Your task to perform on an android device: Open Google Maps and go to "Timeline" Image 0: 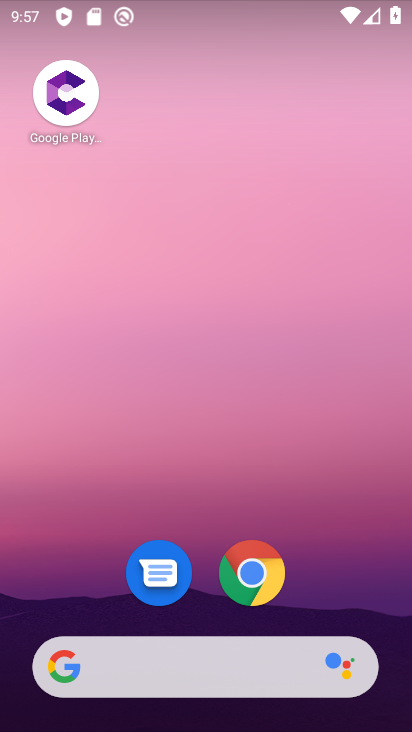
Step 0: drag from (322, 607) to (316, 168)
Your task to perform on an android device: Open Google Maps and go to "Timeline" Image 1: 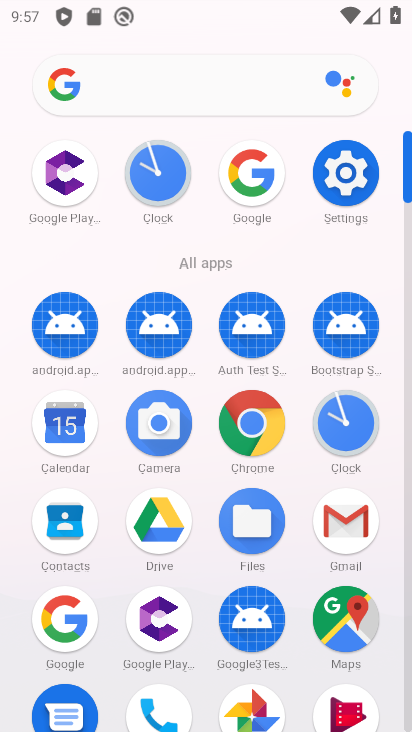
Step 1: click (353, 649)
Your task to perform on an android device: Open Google Maps and go to "Timeline" Image 2: 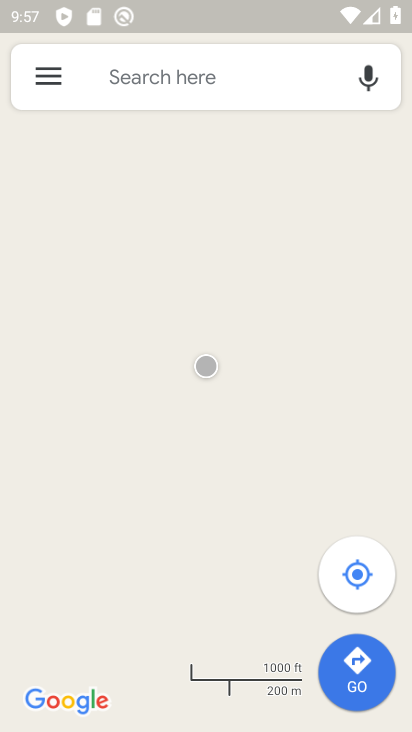
Step 2: click (46, 80)
Your task to perform on an android device: Open Google Maps and go to "Timeline" Image 3: 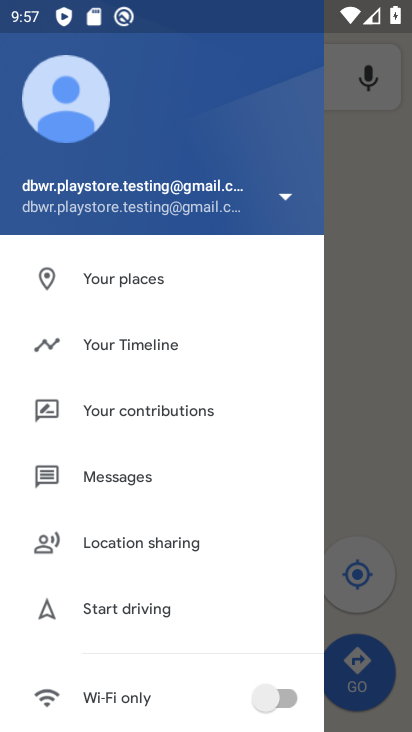
Step 3: click (148, 370)
Your task to perform on an android device: Open Google Maps and go to "Timeline" Image 4: 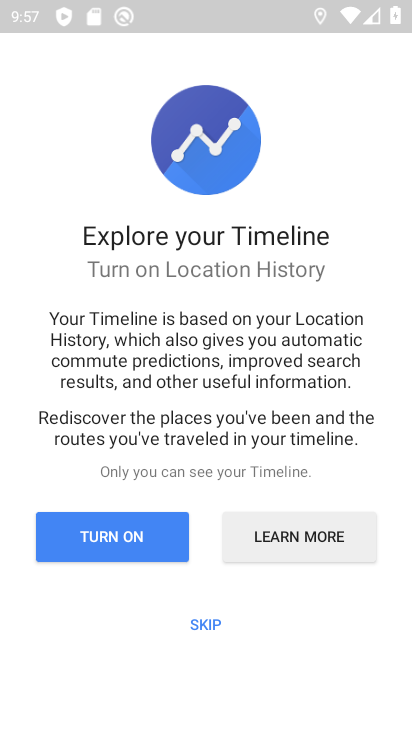
Step 4: click (210, 626)
Your task to perform on an android device: Open Google Maps and go to "Timeline" Image 5: 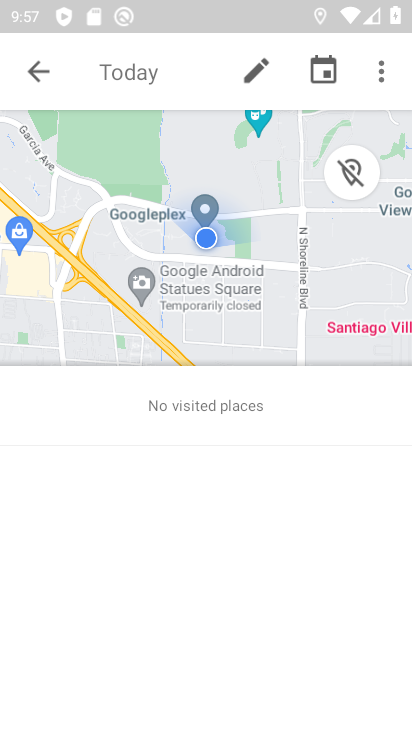
Step 5: task complete